Your task to perform on an android device: toggle wifi Image 0: 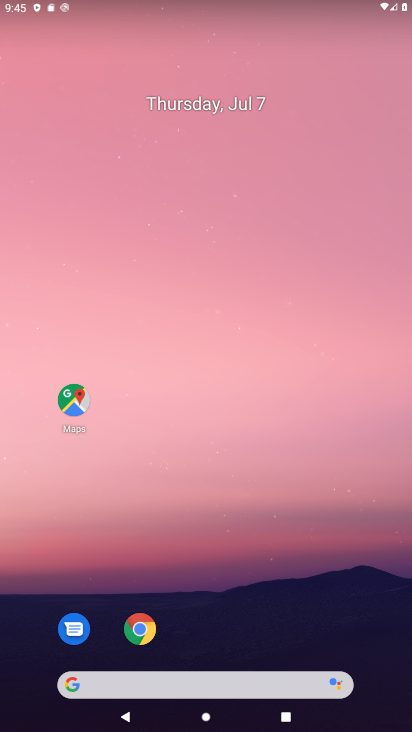
Step 0: drag from (200, 664) to (314, 50)
Your task to perform on an android device: toggle wifi Image 1: 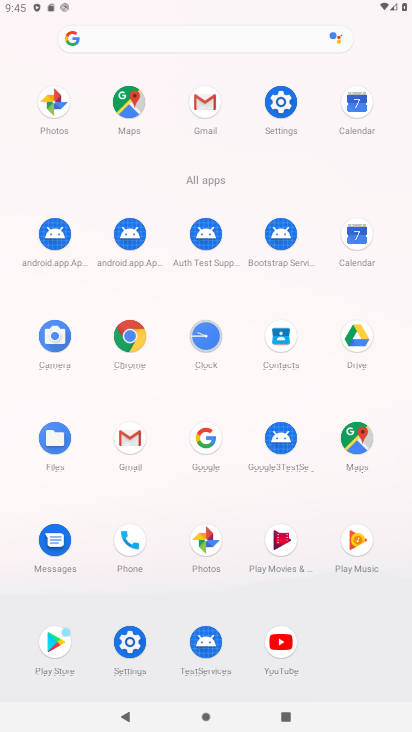
Step 1: click (130, 645)
Your task to perform on an android device: toggle wifi Image 2: 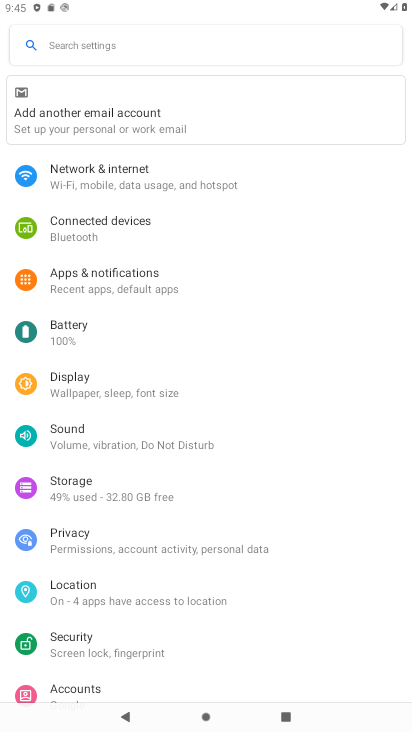
Step 2: click (153, 173)
Your task to perform on an android device: toggle wifi Image 3: 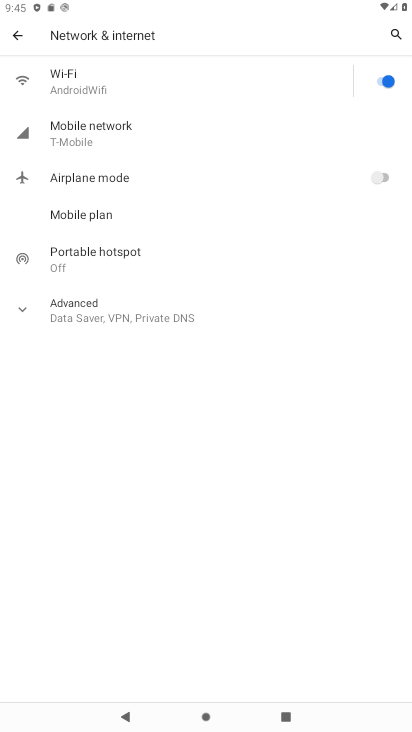
Step 3: click (382, 78)
Your task to perform on an android device: toggle wifi Image 4: 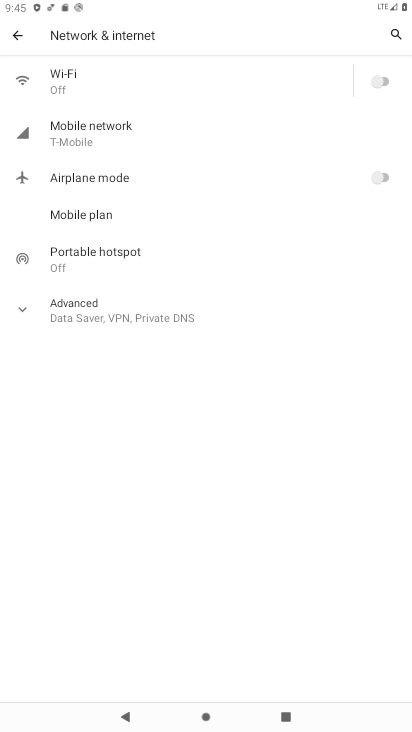
Step 4: task complete